Your task to perform on an android device: make emails show in primary in the gmail app Image 0: 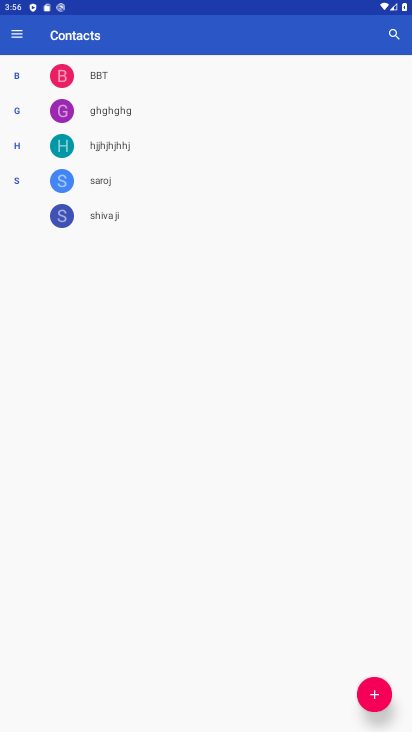
Step 0: press home button
Your task to perform on an android device: make emails show in primary in the gmail app Image 1: 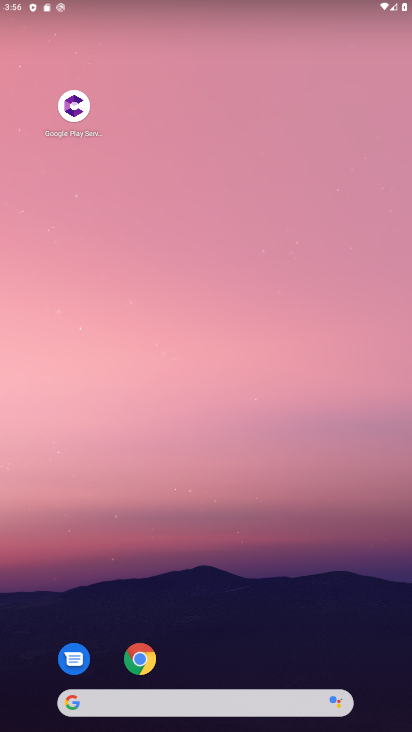
Step 1: drag from (303, 674) to (334, 169)
Your task to perform on an android device: make emails show in primary in the gmail app Image 2: 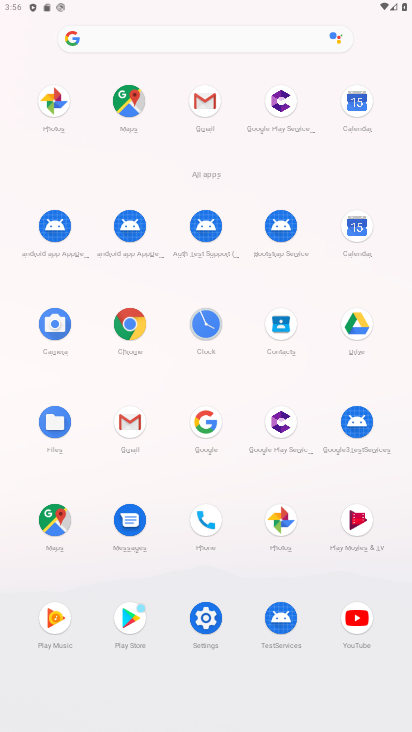
Step 2: click (139, 428)
Your task to perform on an android device: make emails show in primary in the gmail app Image 3: 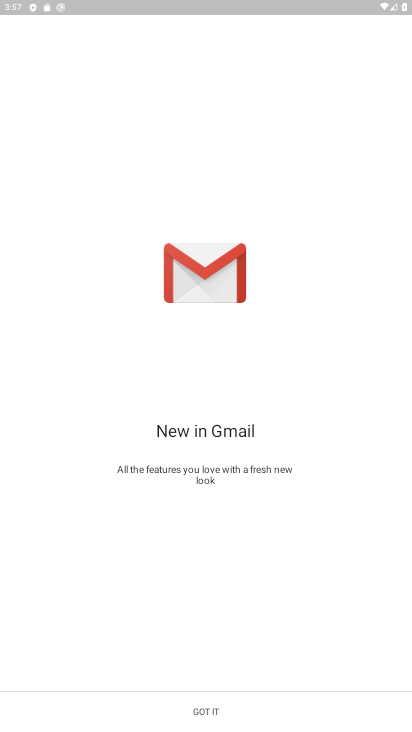
Step 3: click (212, 705)
Your task to perform on an android device: make emails show in primary in the gmail app Image 4: 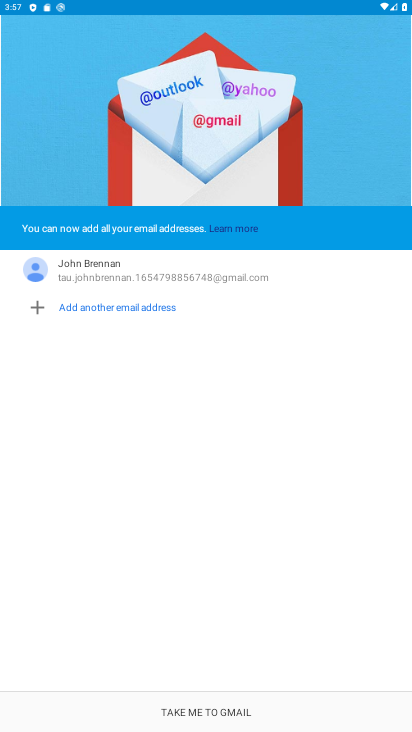
Step 4: click (189, 703)
Your task to perform on an android device: make emails show in primary in the gmail app Image 5: 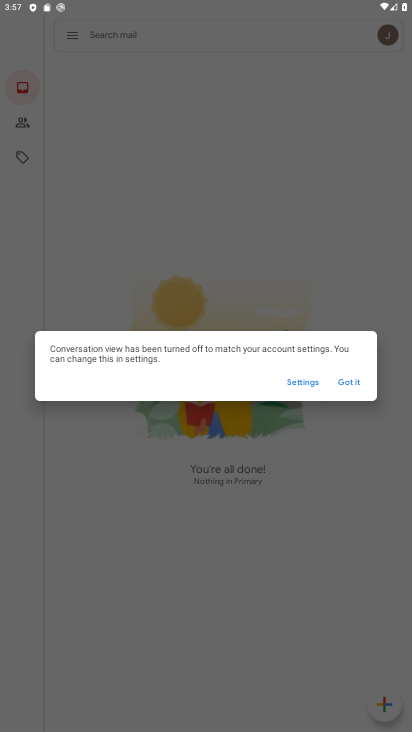
Step 5: click (353, 379)
Your task to perform on an android device: make emails show in primary in the gmail app Image 6: 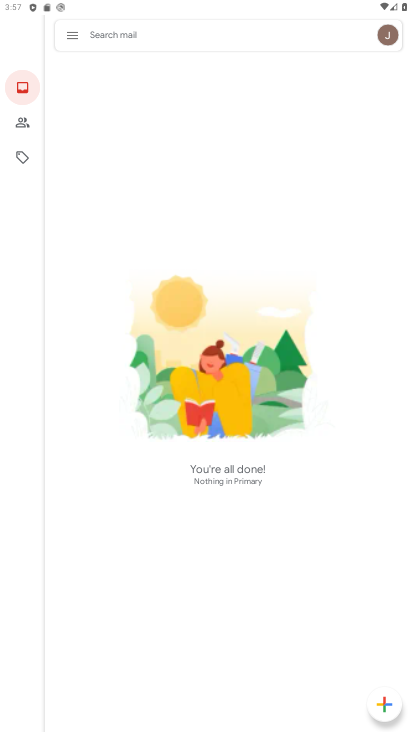
Step 6: click (77, 36)
Your task to perform on an android device: make emails show in primary in the gmail app Image 7: 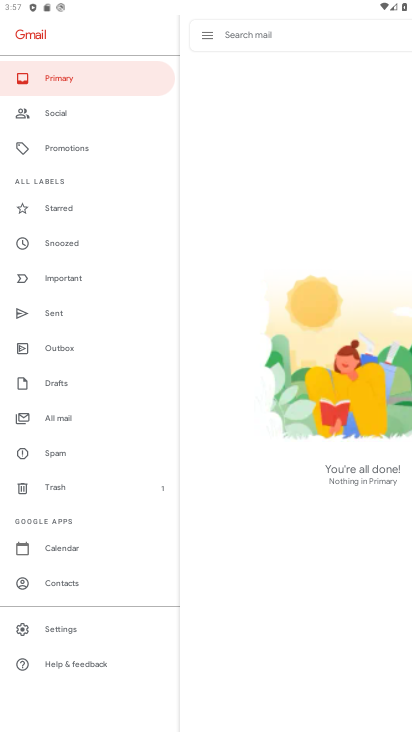
Step 7: task complete